Your task to perform on an android device: visit the assistant section in the google photos Image 0: 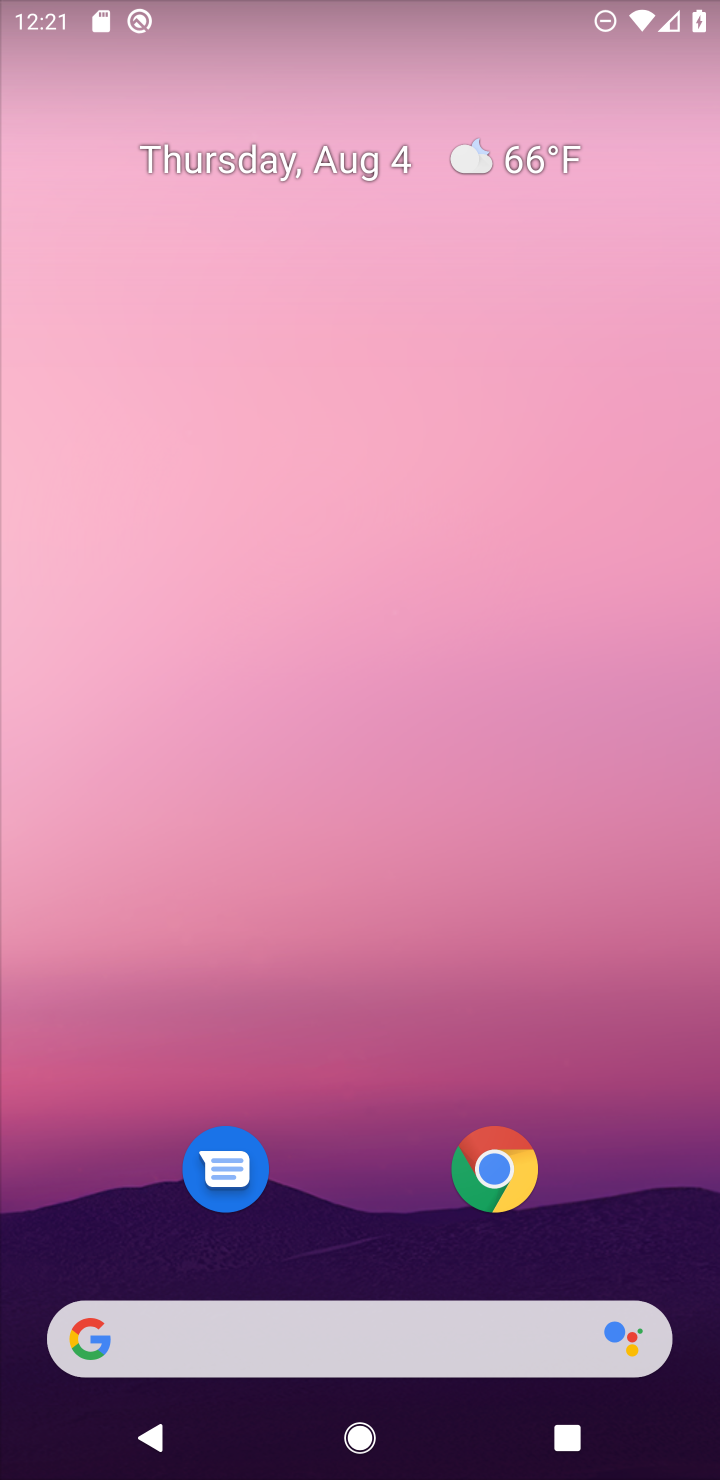
Step 0: drag from (373, 1081) to (403, 42)
Your task to perform on an android device: visit the assistant section in the google photos Image 1: 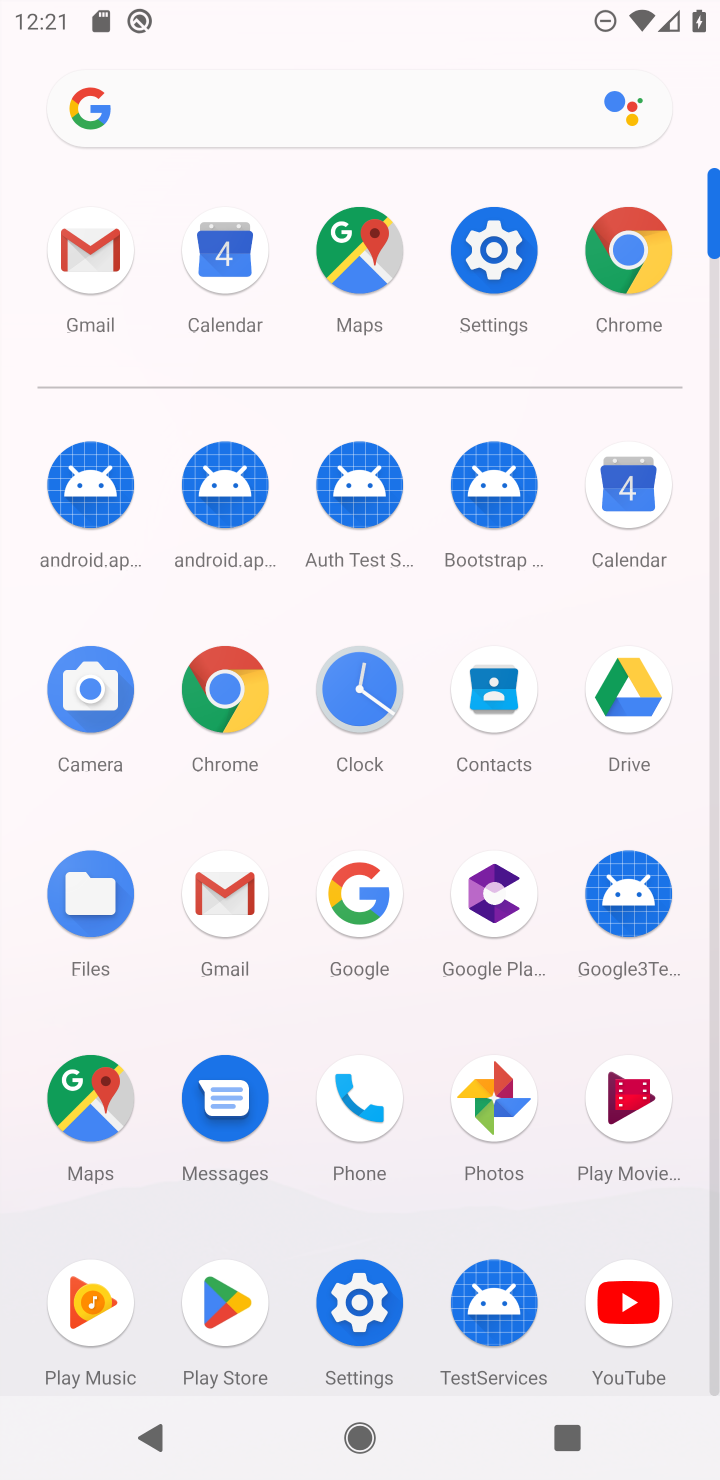
Step 1: click (496, 1116)
Your task to perform on an android device: visit the assistant section in the google photos Image 2: 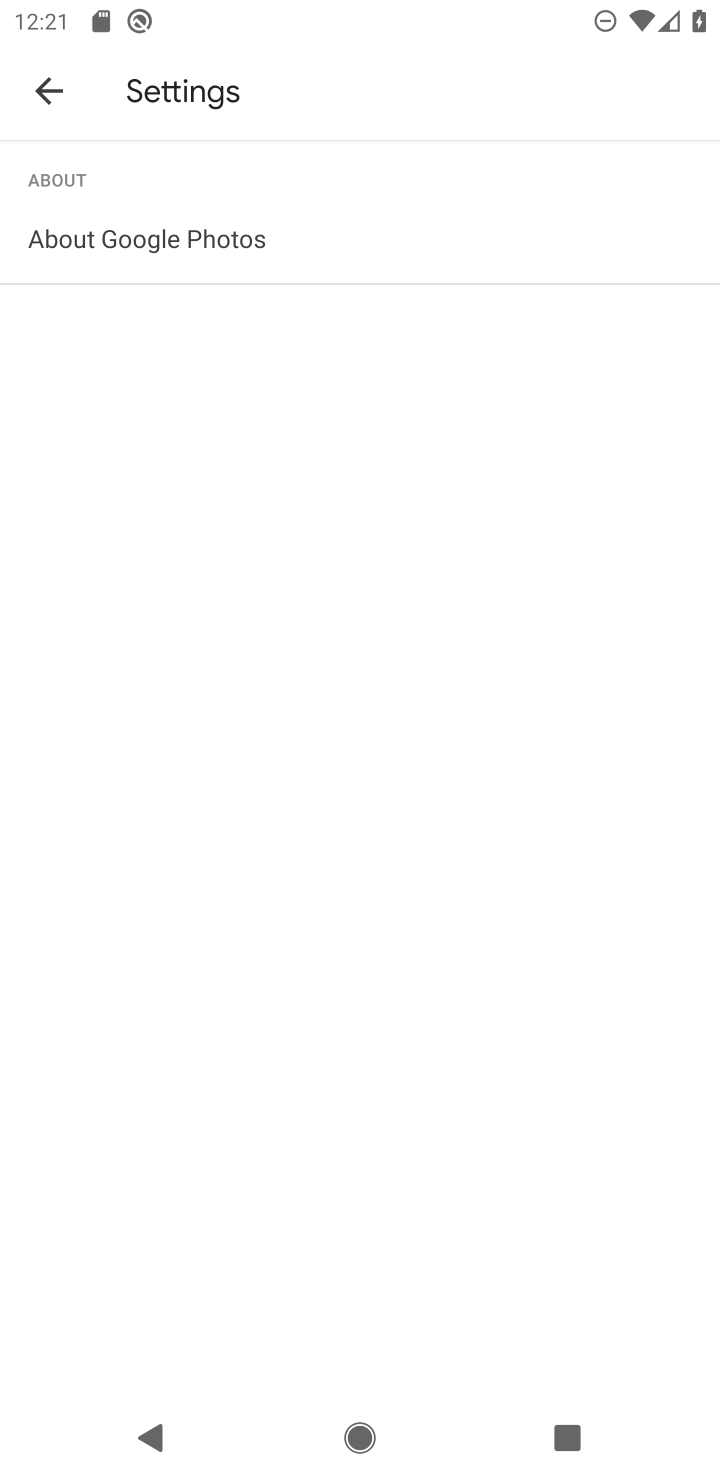
Step 2: click (44, 99)
Your task to perform on an android device: visit the assistant section in the google photos Image 3: 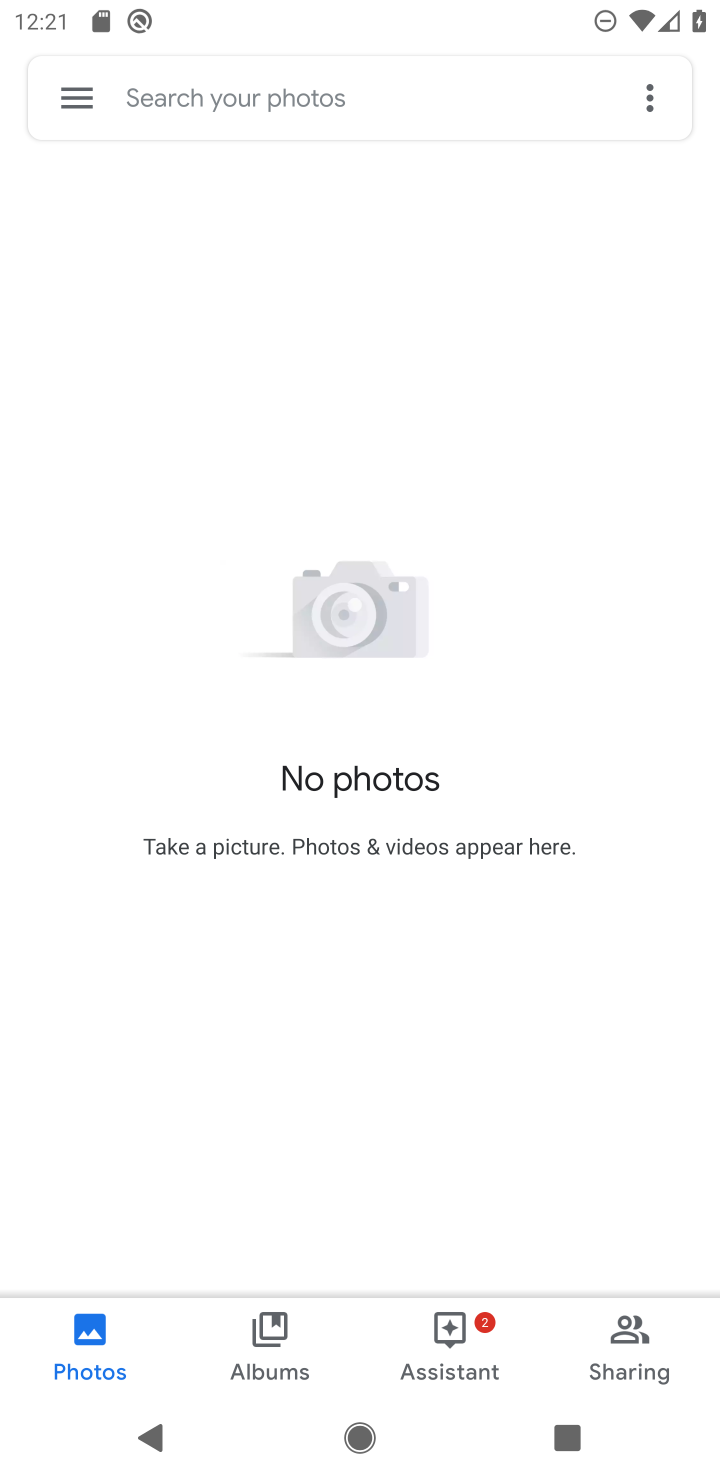
Step 3: click (440, 1371)
Your task to perform on an android device: visit the assistant section in the google photos Image 4: 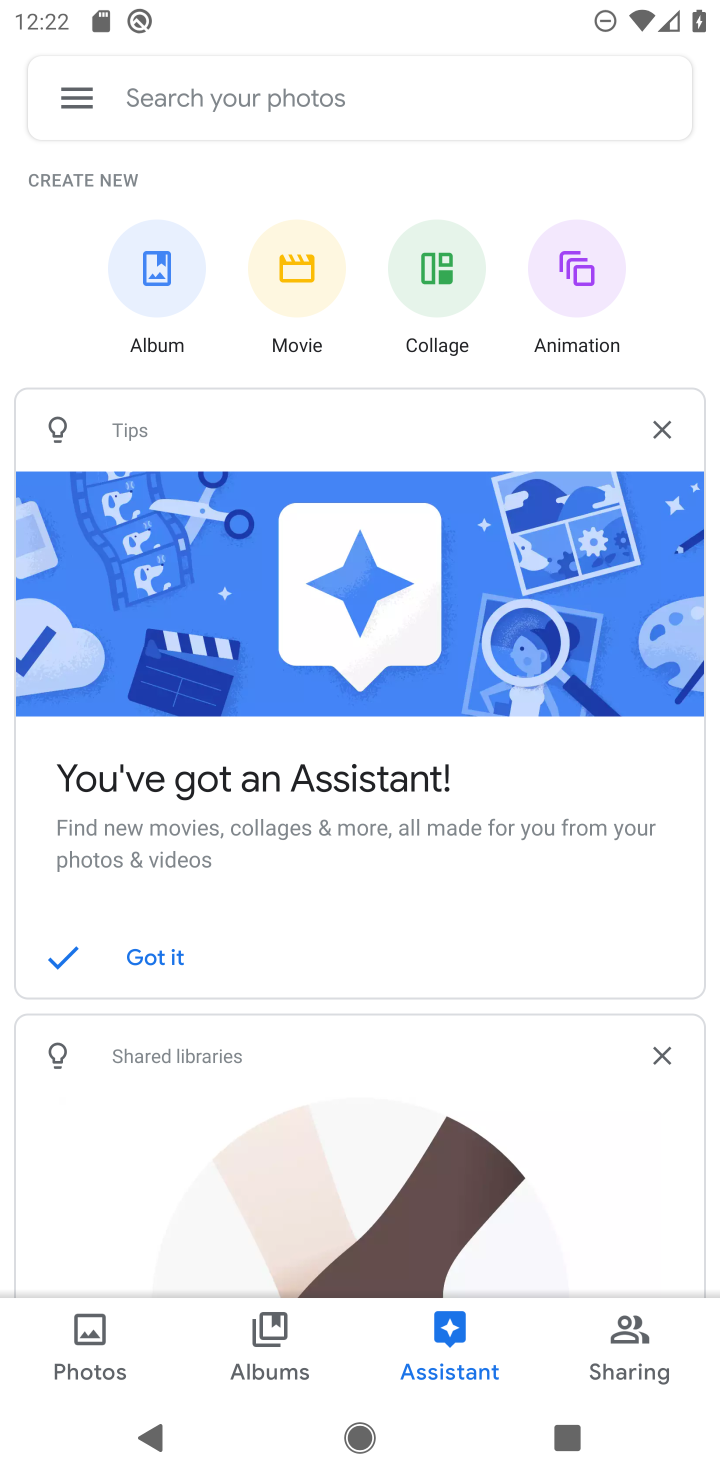
Step 4: click (434, 1352)
Your task to perform on an android device: visit the assistant section in the google photos Image 5: 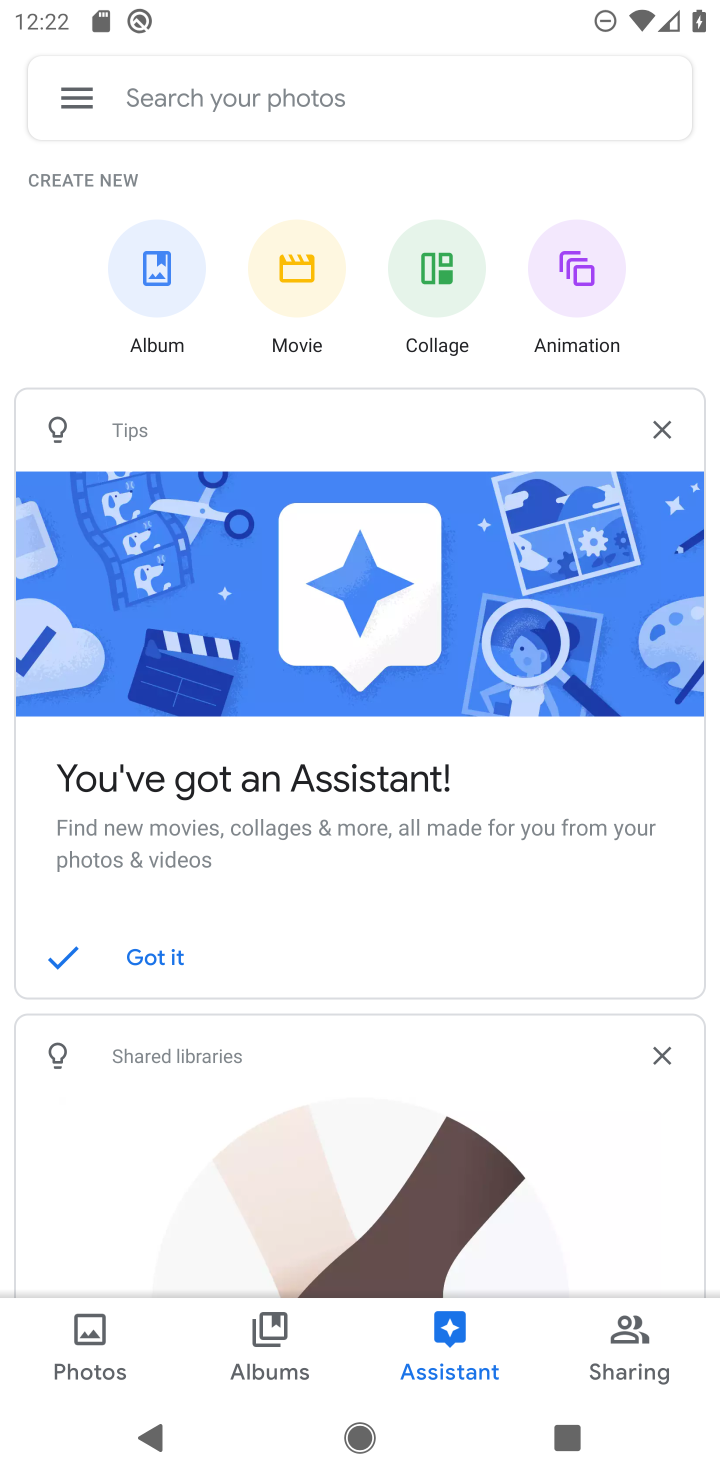
Step 5: task complete